Your task to perform on an android device: Open Google Chrome and open the bookmarks view Image 0: 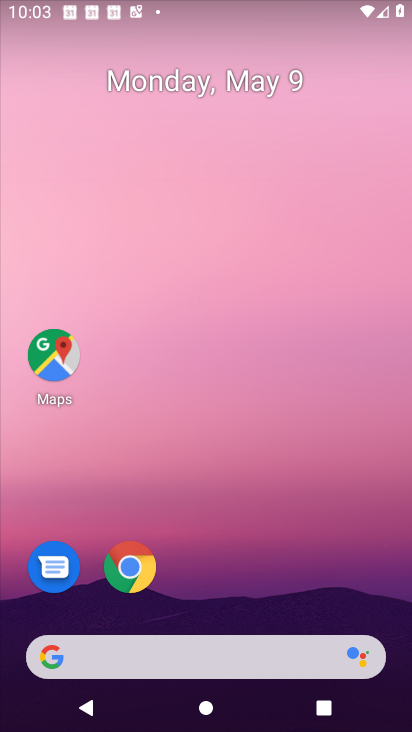
Step 0: click (144, 589)
Your task to perform on an android device: Open Google Chrome and open the bookmarks view Image 1: 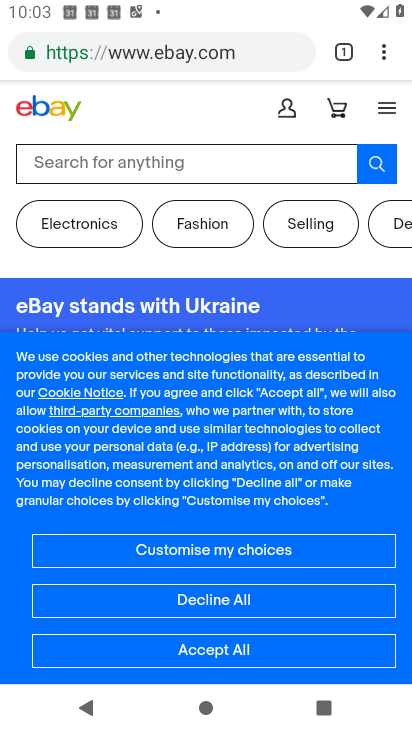
Step 1: click (392, 63)
Your task to perform on an android device: Open Google Chrome and open the bookmarks view Image 2: 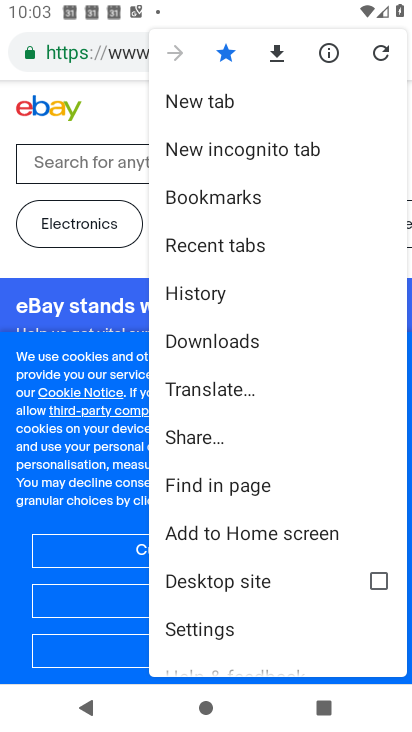
Step 2: click (253, 196)
Your task to perform on an android device: Open Google Chrome and open the bookmarks view Image 3: 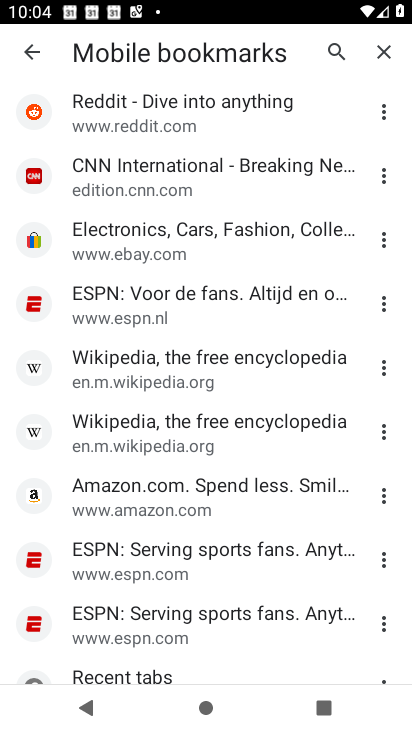
Step 3: click (152, 287)
Your task to perform on an android device: Open Google Chrome and open the bookmarks view Image 4: 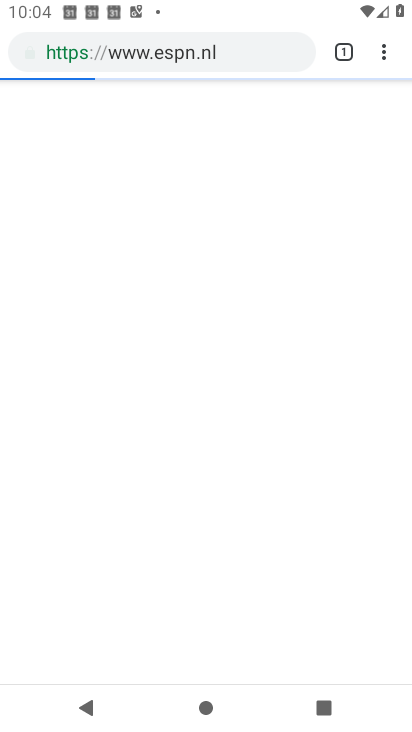
Step 4: task complete